Your task to perform on an android device: manage bookmarks in the chrome app Image 0: 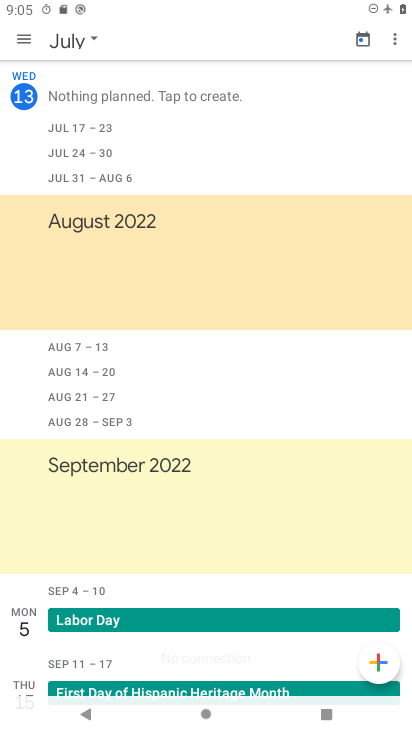
Step 0: press back button
Your task to perform on an android device: manage bookmarks in the chrome app Image 1: 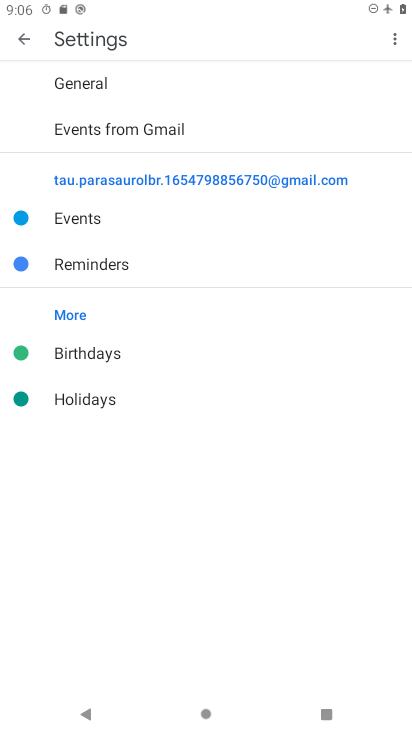
Step 1: click (20, 39)
Your task to perform on an android device: manage bookmarks in the chrome app Image 2: 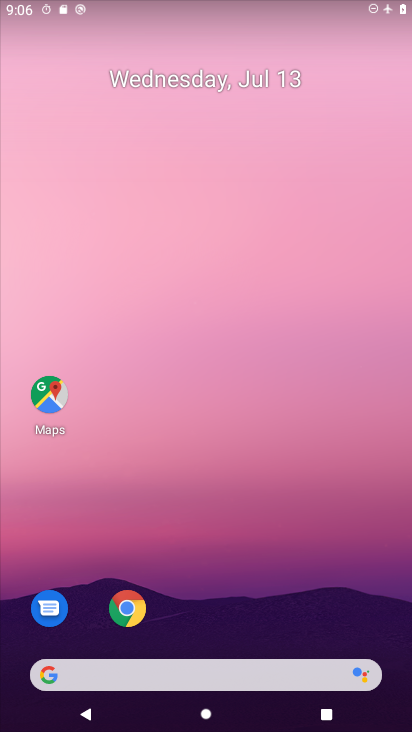
Step 2: drag from (233, 474) to (242, 241)
Your task to perform on an android device: manage bookmarks in the chrome app Image 3: 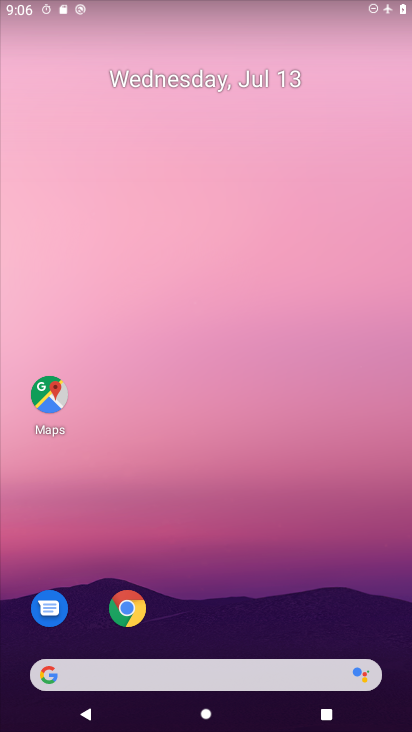
Step 3: drag from (272, 582) to (238, 183)
Your task to perform on an android device: manage bookmarks in the chrome app Image 4: 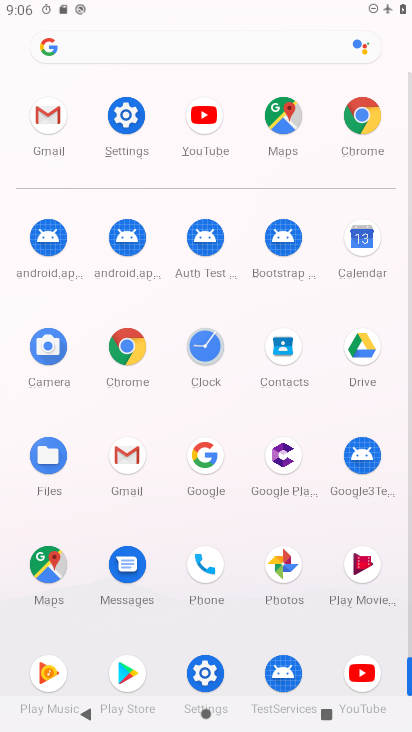
Step 4: click (367, 118)
Your task to perform on an android device: manage bookmarks in the chrome app Image 5: 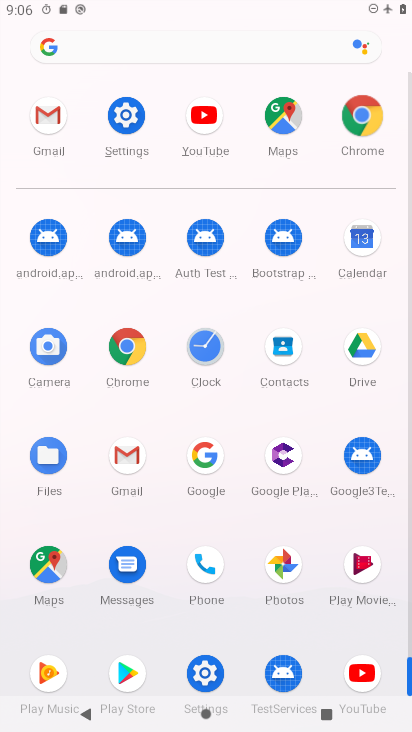
Step 5: click (368, 119)
Your task to perform on an android device: manage bookmarks in the chrome app Image 6: 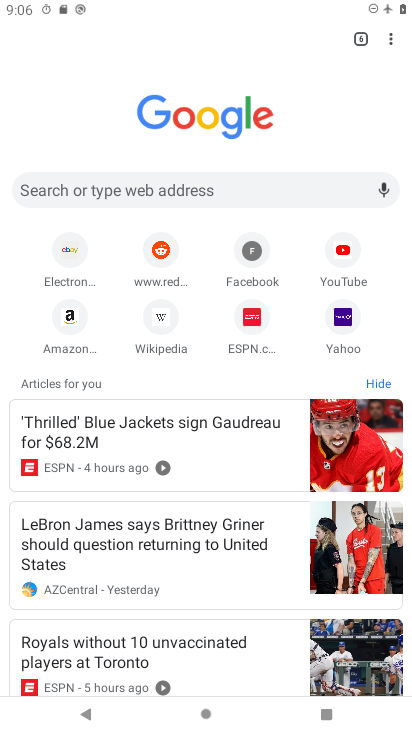
Step 6: drag from (385, 35) to (274, 140)
Your task to perform on an android device: manage bookmarks in the chrome app Image 7: 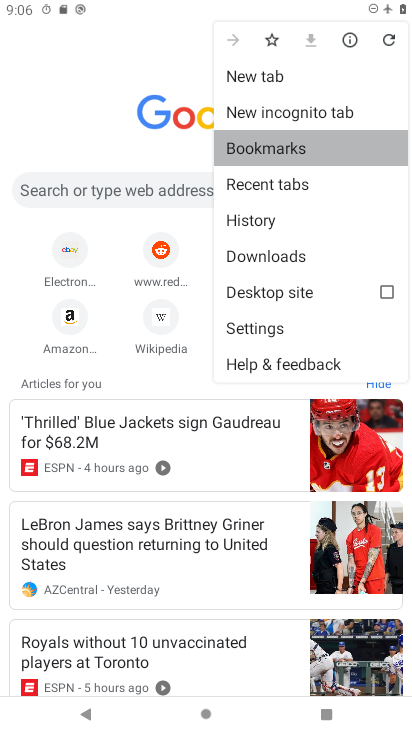
Step 7: click (274, 140)
Your task to perform on an android device: manage bookmarks in the chrome app Image 8: 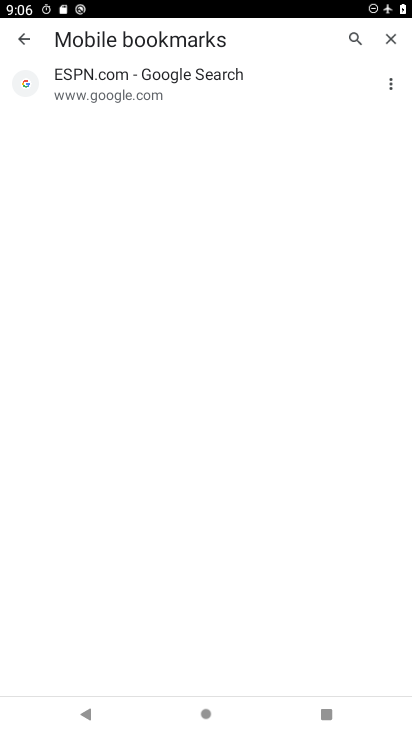
Step 8: task complete